Your task to perform on an android device: Go to display settings Image 0: 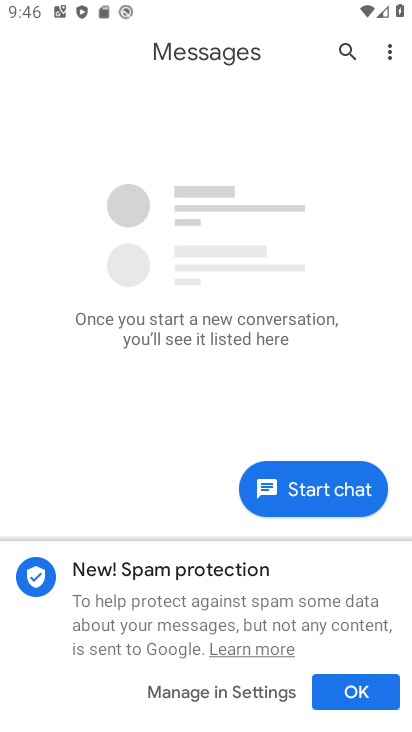
Step 0: press home button
Your task to perform on an android device: Go to display settings Image 1: 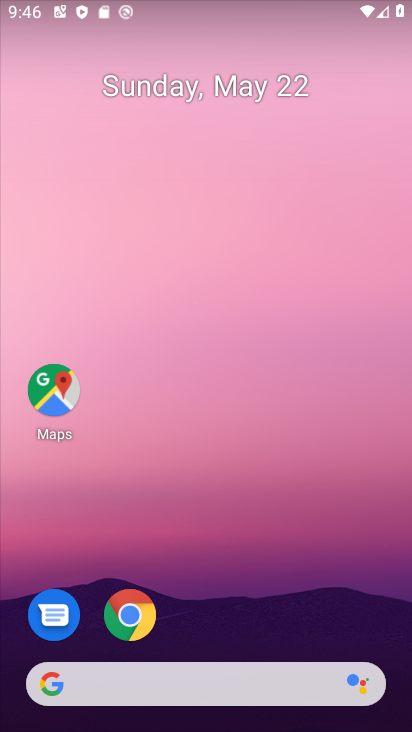
Step 1: drag from (287, 584) to (323, 53)
Your task to perform on an android device: Go to display settings Image 2: 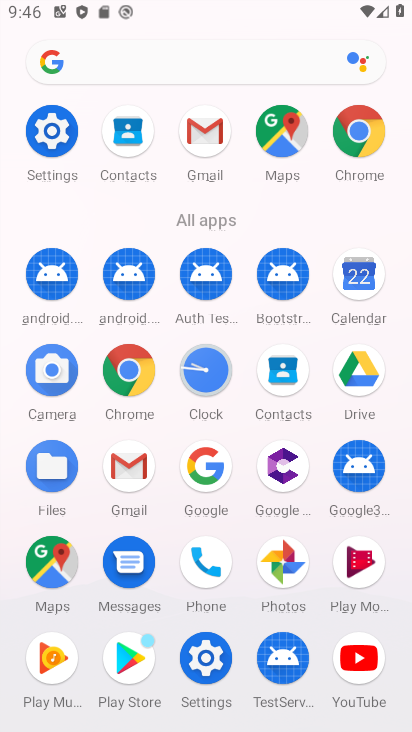
Step 2: click (53, 122)
Your task to perform on an android device: Go to display settings Image 3: 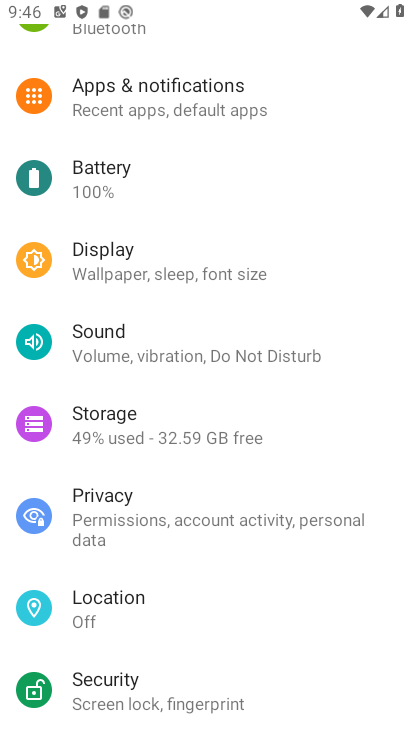
Step 3: click (128, 192)
Your task to perform on an android device: Go to display settings Image 4: 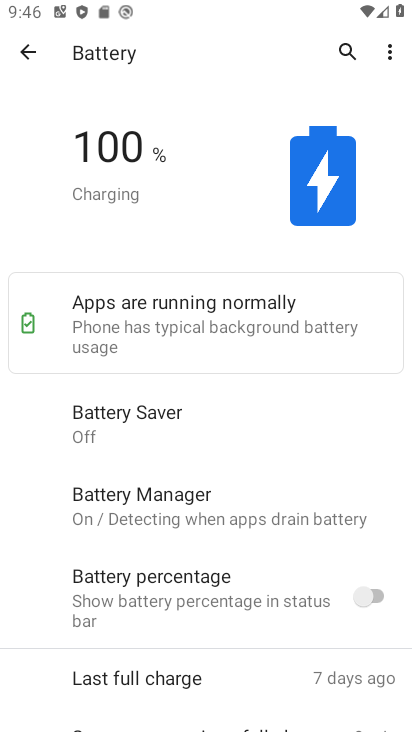
Step 4: task complete